Your task to perform on an android device: Open Chrome and go to settings Image 0: 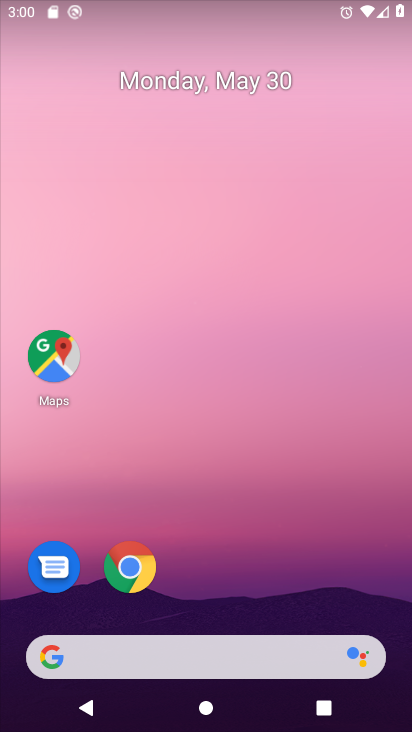
Step 0: drag from (194, 542) to (247, 24)
Your task to perform on an android device: Open Chrome and go to settings Image 1: 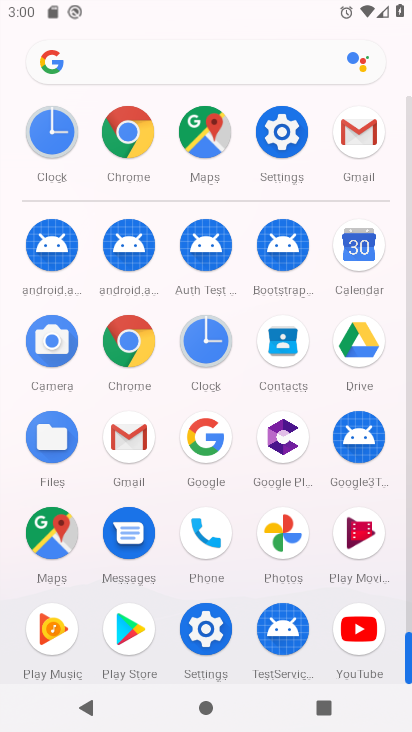
Step 1: click (134, 343)
Your task to perform on an android device: Open Chrome and go to settings Image 2: 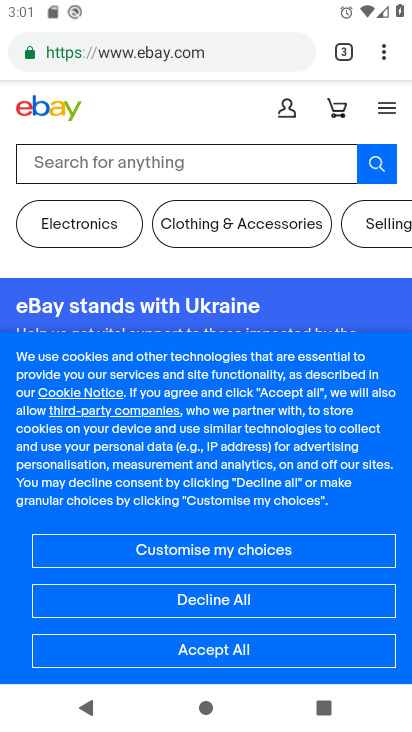
Step 2: click (382, 48)
Your task to perform on an android device: Open Chrome and go to settings Image 3: 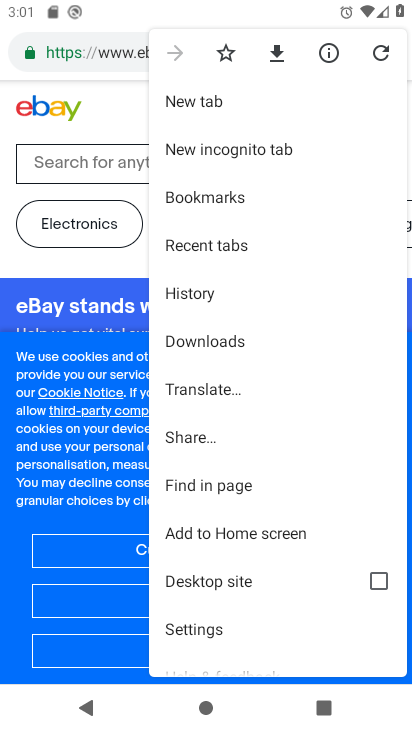
Step 3: click (218, 619)
Your task to perform on an android device: Open Chrome and go to settings Image 4: 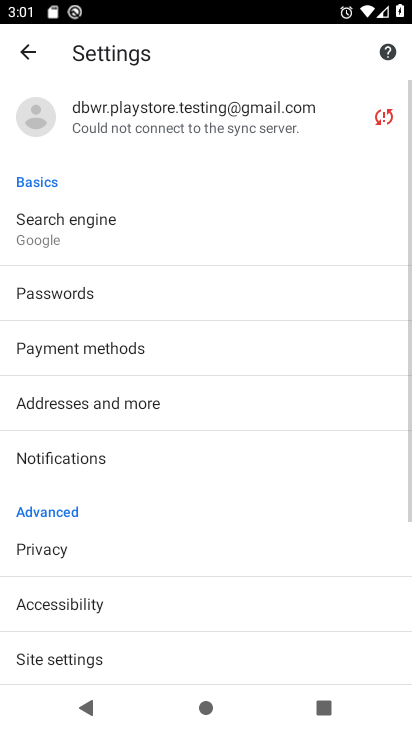
Step 4: task complete